Your task to perform on an android device: change keyboard looks Image 0: 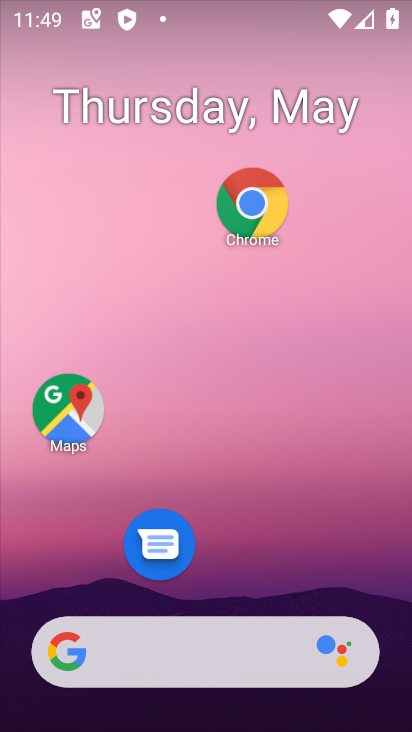
Step 0: click (285, 247)
Your task to perform on an android device: change keyboard looks Image 1: 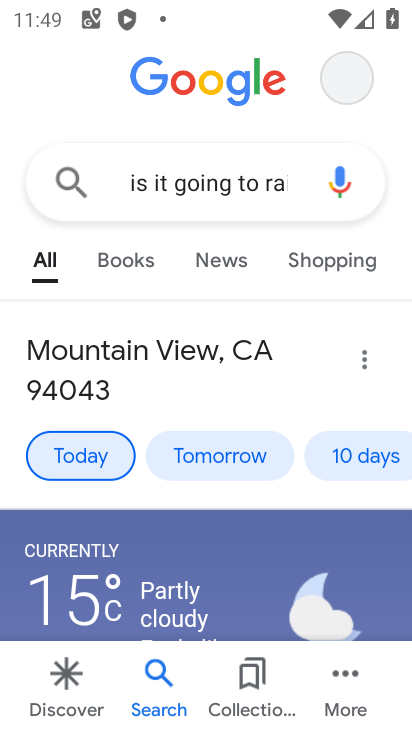
Step 1: press home button
Your task to perform on an android device: change keyboard looks Image 2: 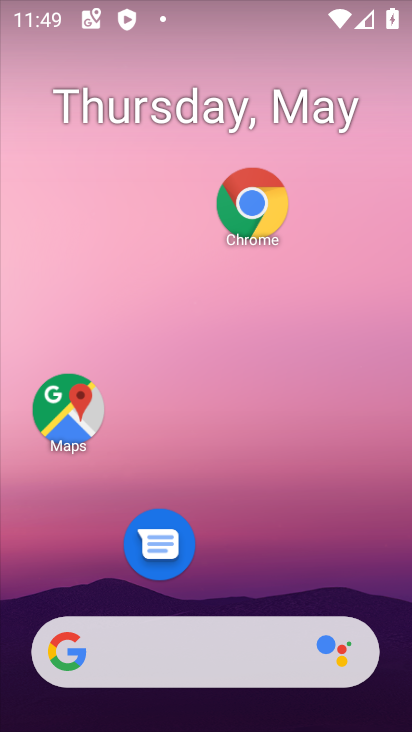
Step 2: drag from (208, 428) to (208, 30)
Your task to perform on an android device: change keyboard looks Image 3: 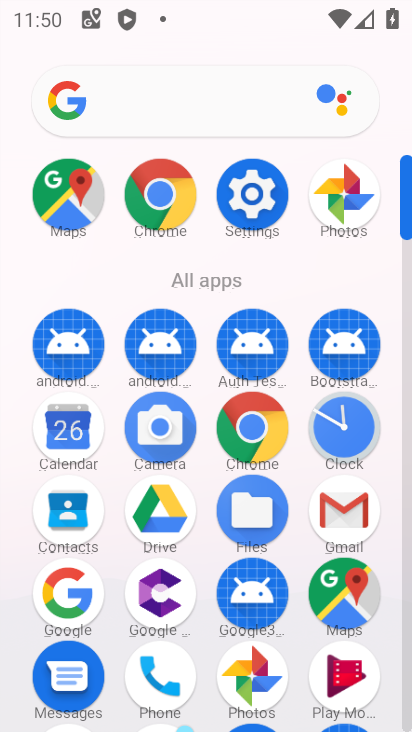
Step 3: click (249, 190)
Your task to perform on an android device: change keyboard looks Image 4: 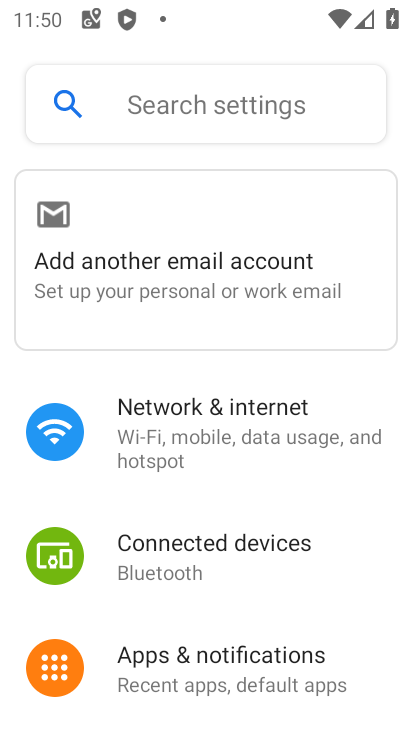
Step 4: drag from (213, 517) to (218, 3)
Your task to perform on an android device: change keyboard looks Image 5: 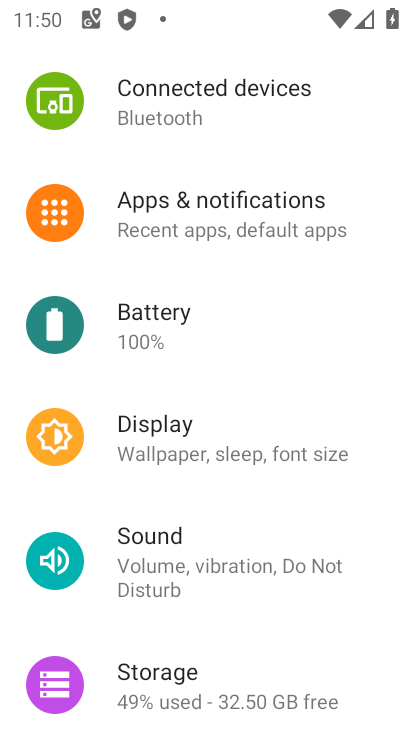
Step 5: drag from (189, 608) to (251, 30)
Your task to perform on an android device: change keyboard looks Image 6: 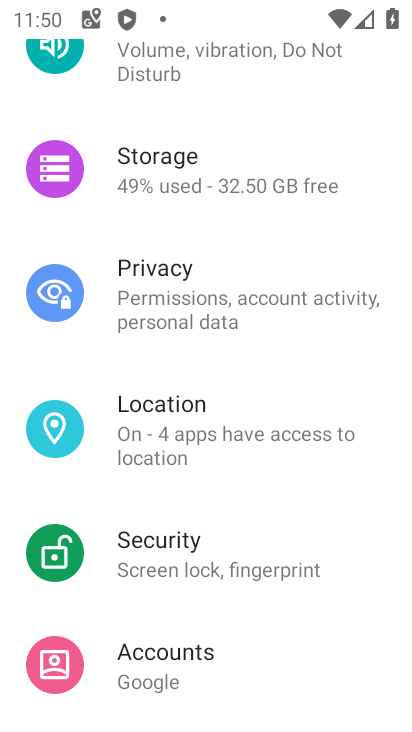
Step 6: drag from (212, 559) to (191, 38)
Your task to perform on an android device: change keyboard looks Image 7: 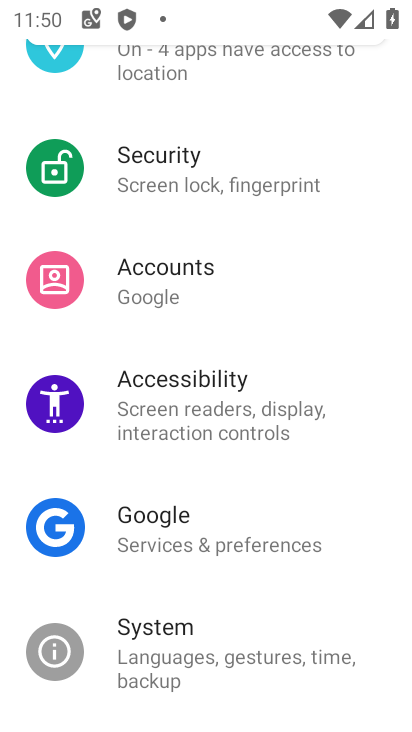
Step 7: drag from (202, 643) to (337, 11)
Your task to perform on an android device: change keyboard looks Image 8: 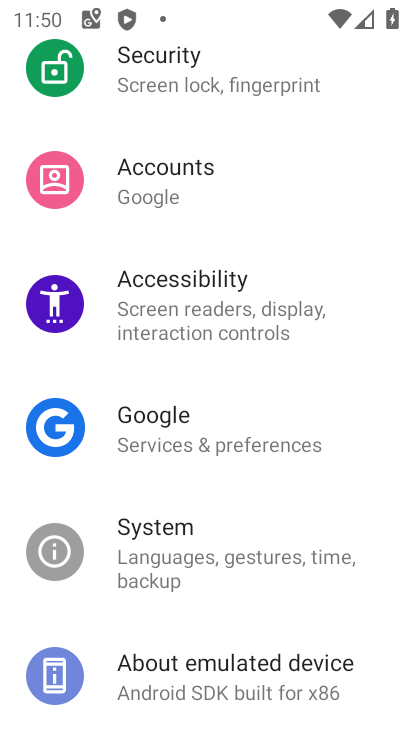
Step 8: click (171, 554)
Your task to perform on an android device: change keyboard looks Image 9: 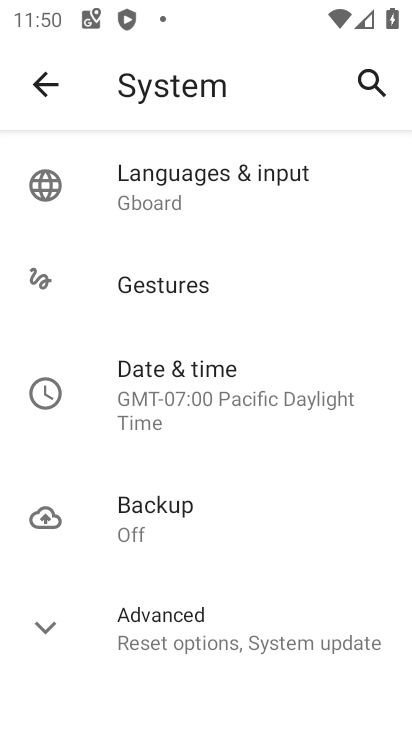
Step 9: drag from (221, 505) to (287, 76)
Your task to perform on an android device: change keyboard looks Image 10: 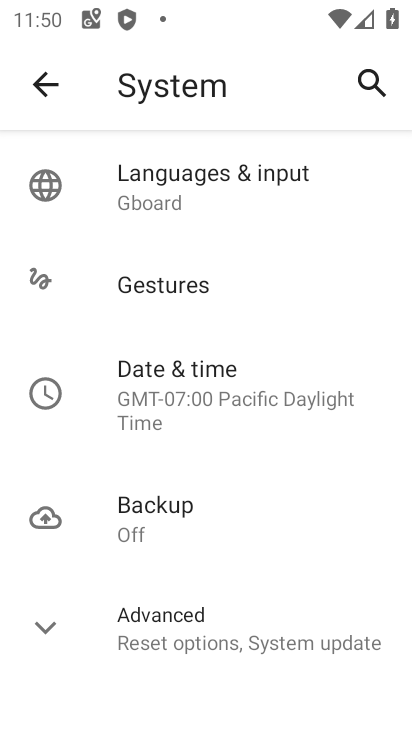
Step 10: click (229, 207)
Your task to perform on an android device: change keyboard looks Image 11: 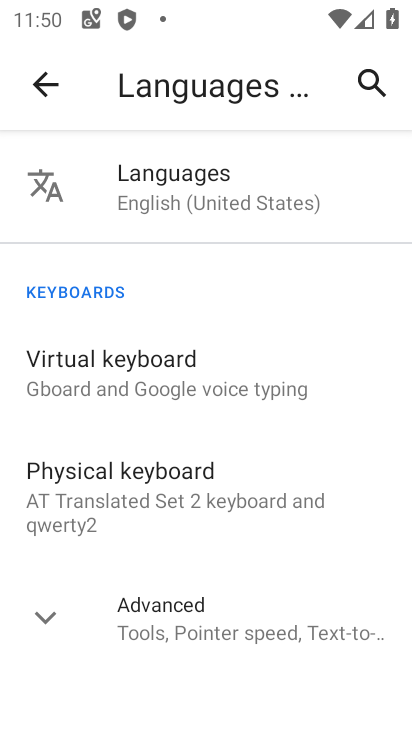
Step 11: click (170, 391)
Your task to perform on an android device: change keyboard looks Image 12: 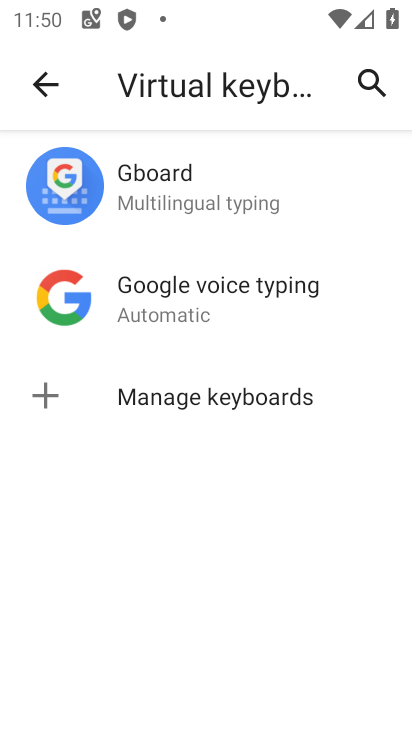
Step 12: click (240, 213)
Your task to perform on an android device: change keyboard looks Image 13: 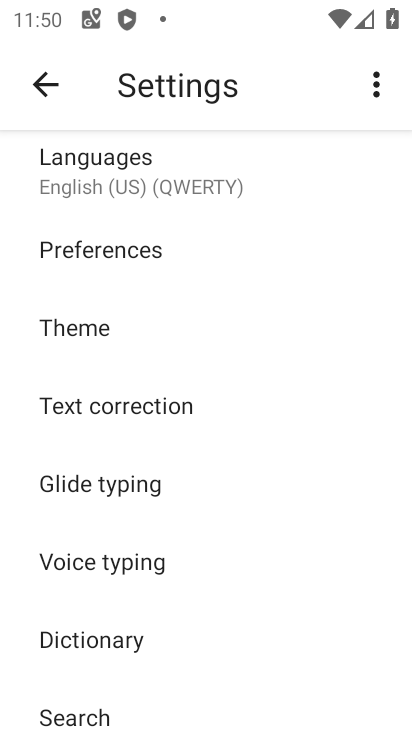
Step 13: click (115, 337)
Your task to perform on an android device: change keyboard looks Image 14: 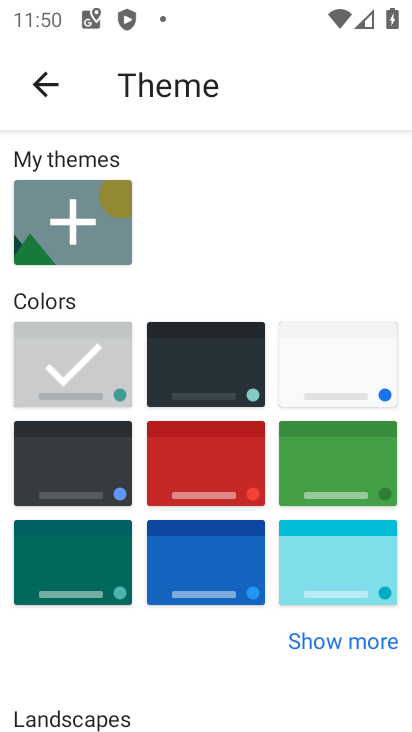
Step 14: click (192, 367)
Your task to perform on an android device: change keyboard looks Image 15: 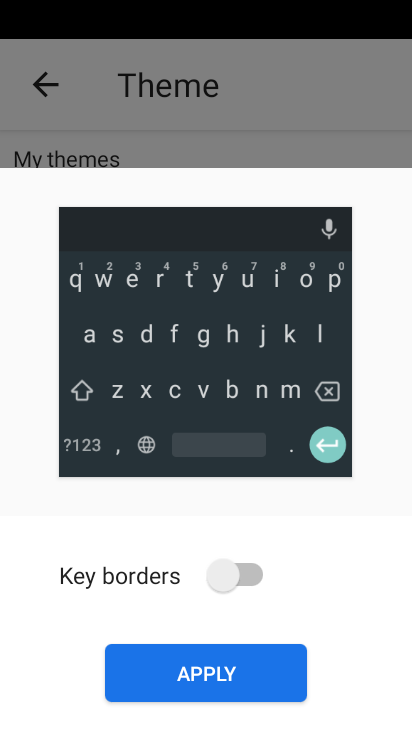
Step 15: click (199, 672)
Your task to perform on an android device: change keyboard looks Image 16: 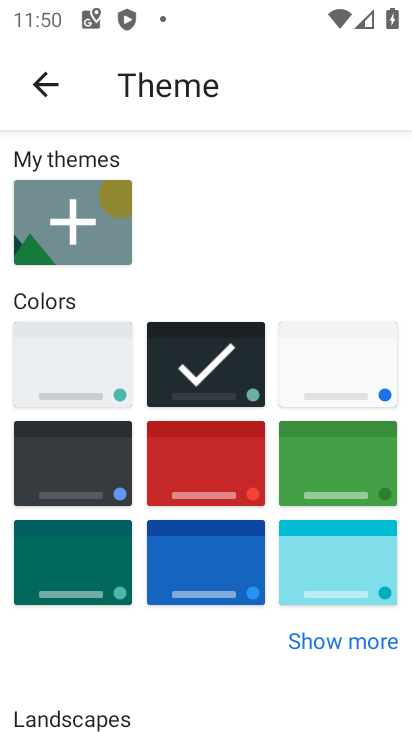
Step 16: task complete